Your task to perform on an android device: Add macbook to the cart on walmart Image 0: 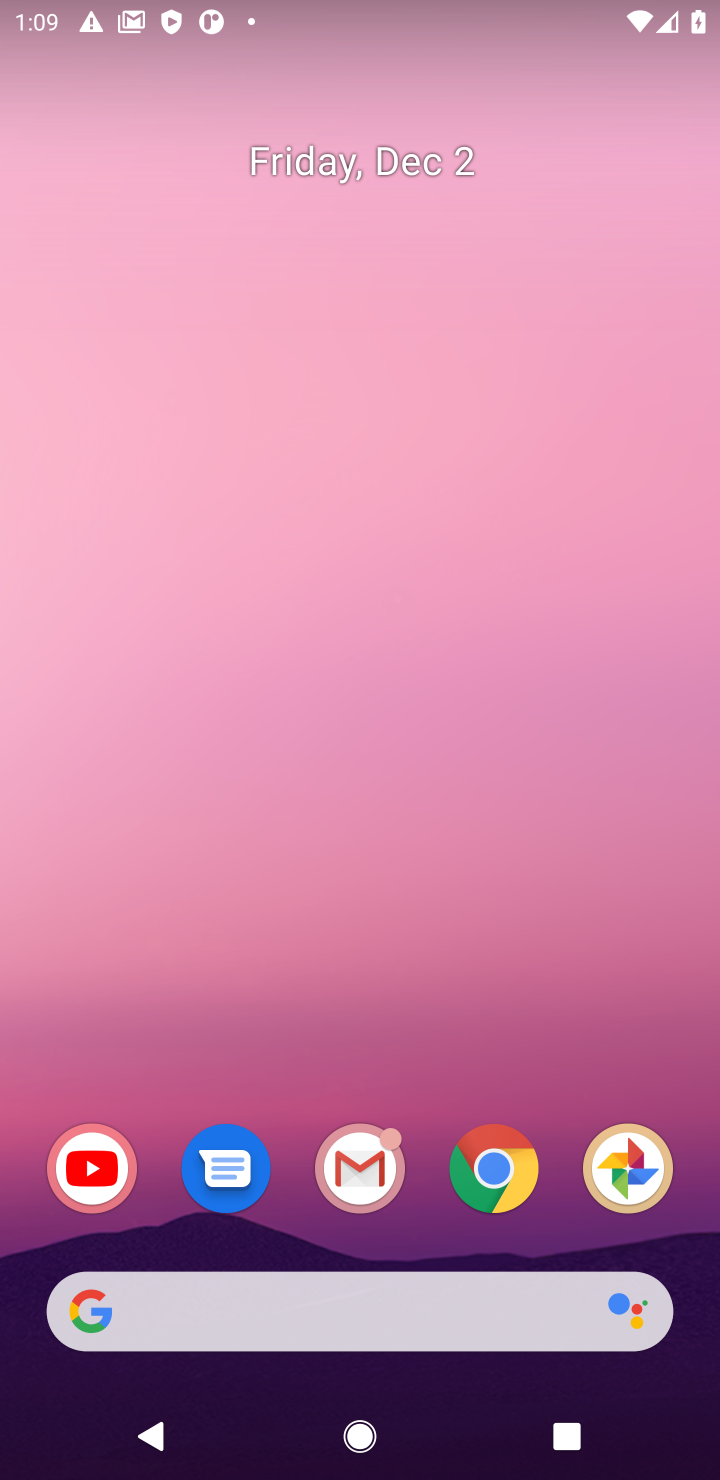
Step 0: click (496, 1177)
Your task to perform on an android device: Add macbook to the cart on walmart Image 1: 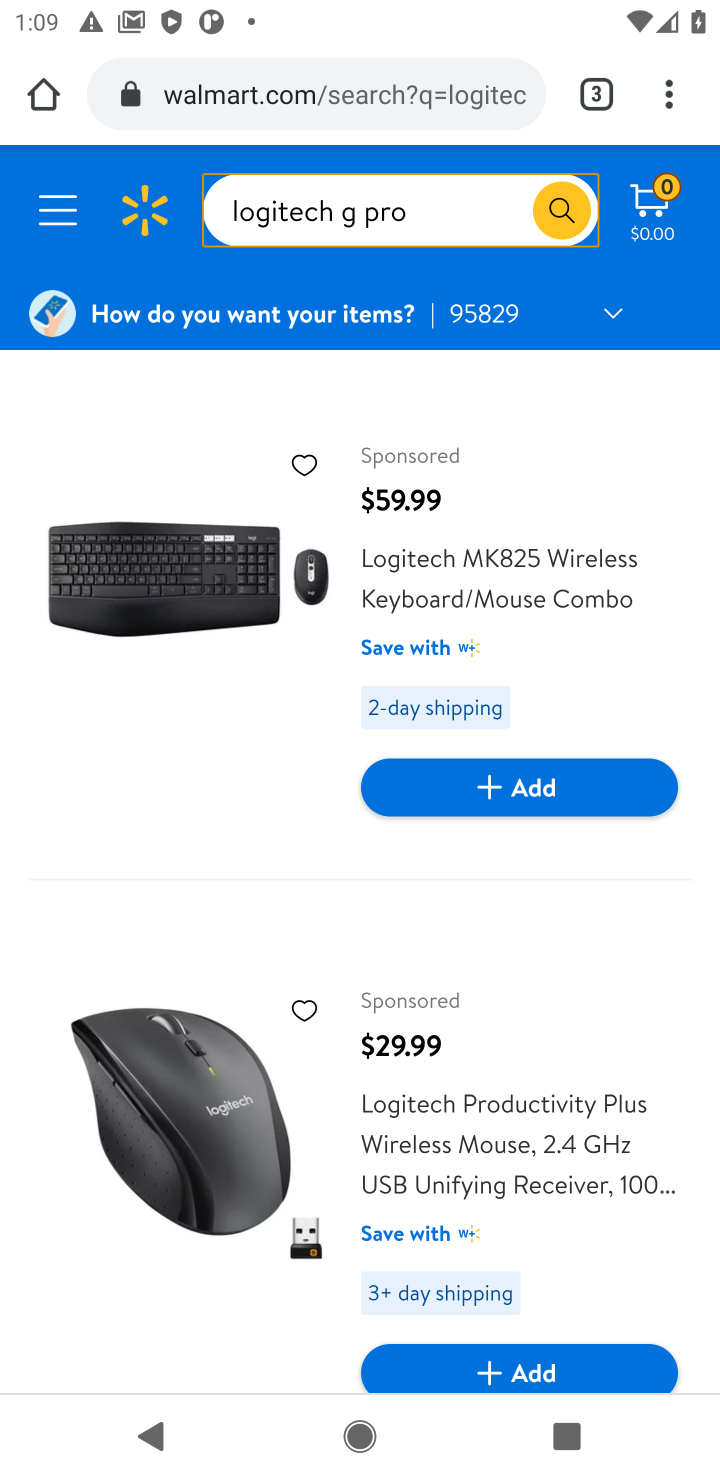
Step 1: click (415, 224)
Your task to perform on an android device: Add macbook to the cart on walmart Image 2: 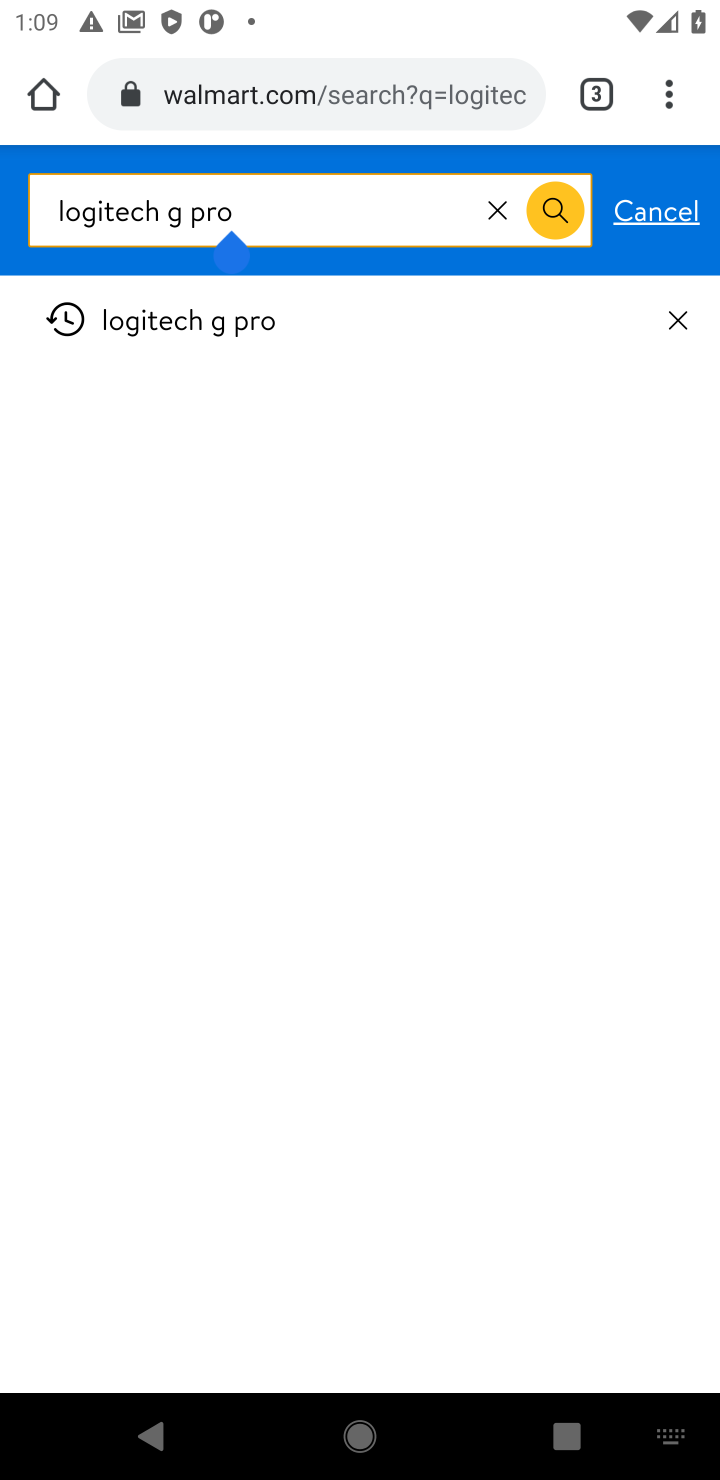
Step 2: click (509, 209)
Your task to perform on an android device: Add macbook to the cart on walmart Image 3: 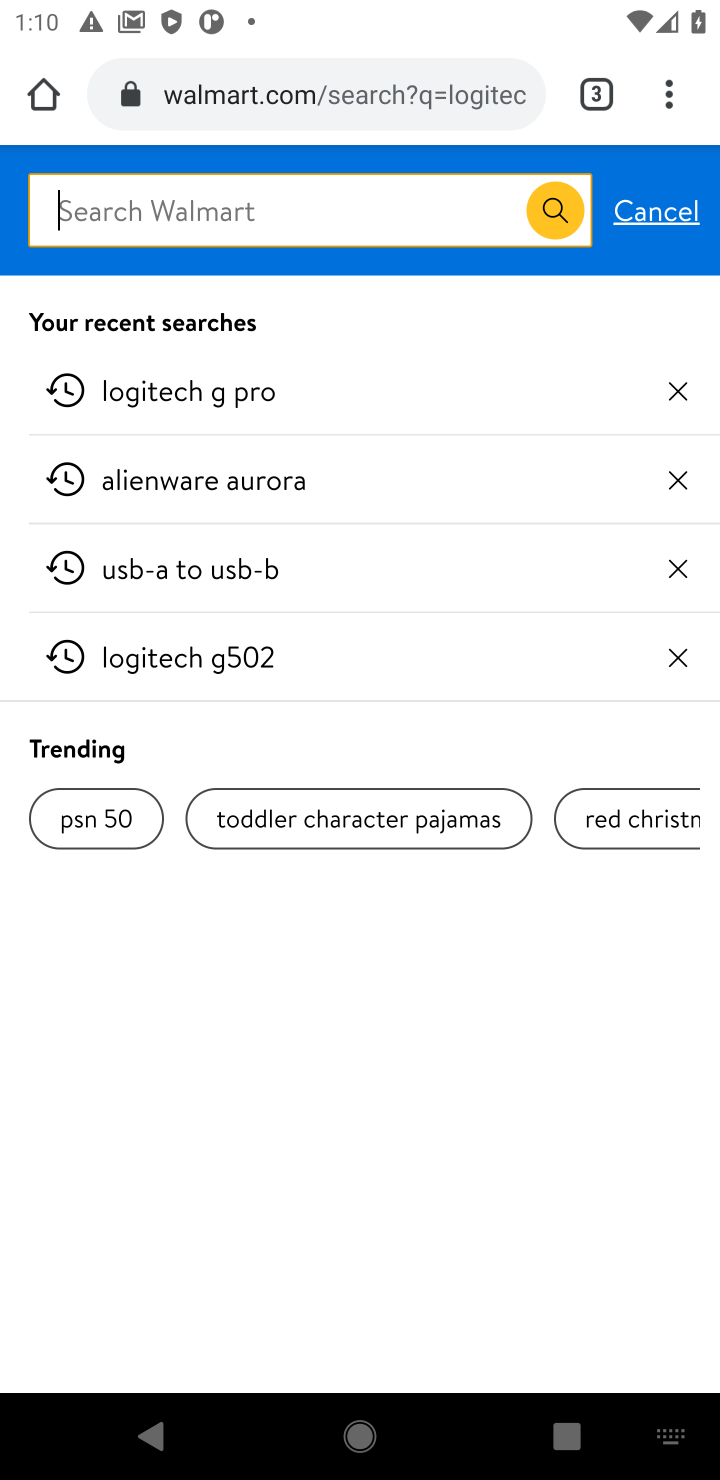
Step 3: click (162, 226)
Your task to perform on an android device: Add macbook to the cart on walmart Image 4: 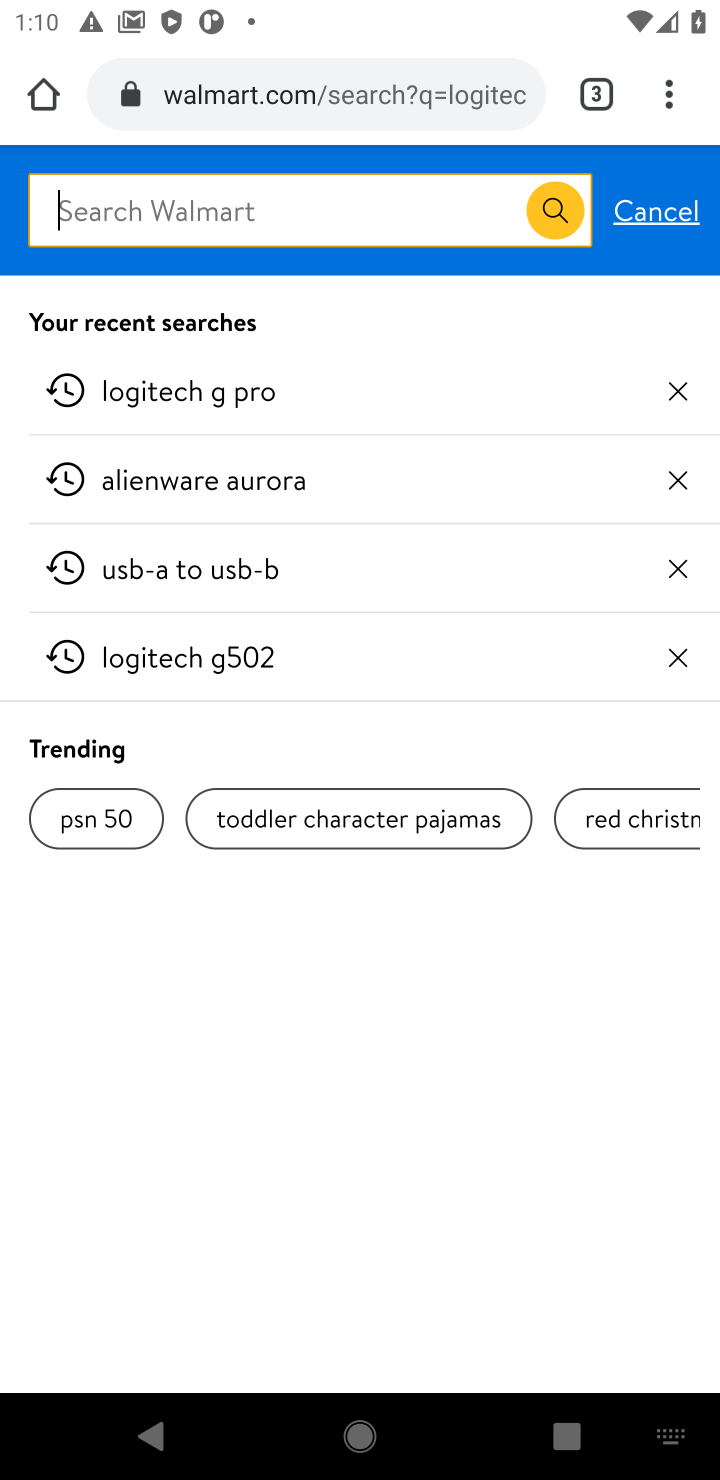
Step 4: type "macbook"
Your task to perform on an android device: Add macbook to the cart on walmart Image 5: 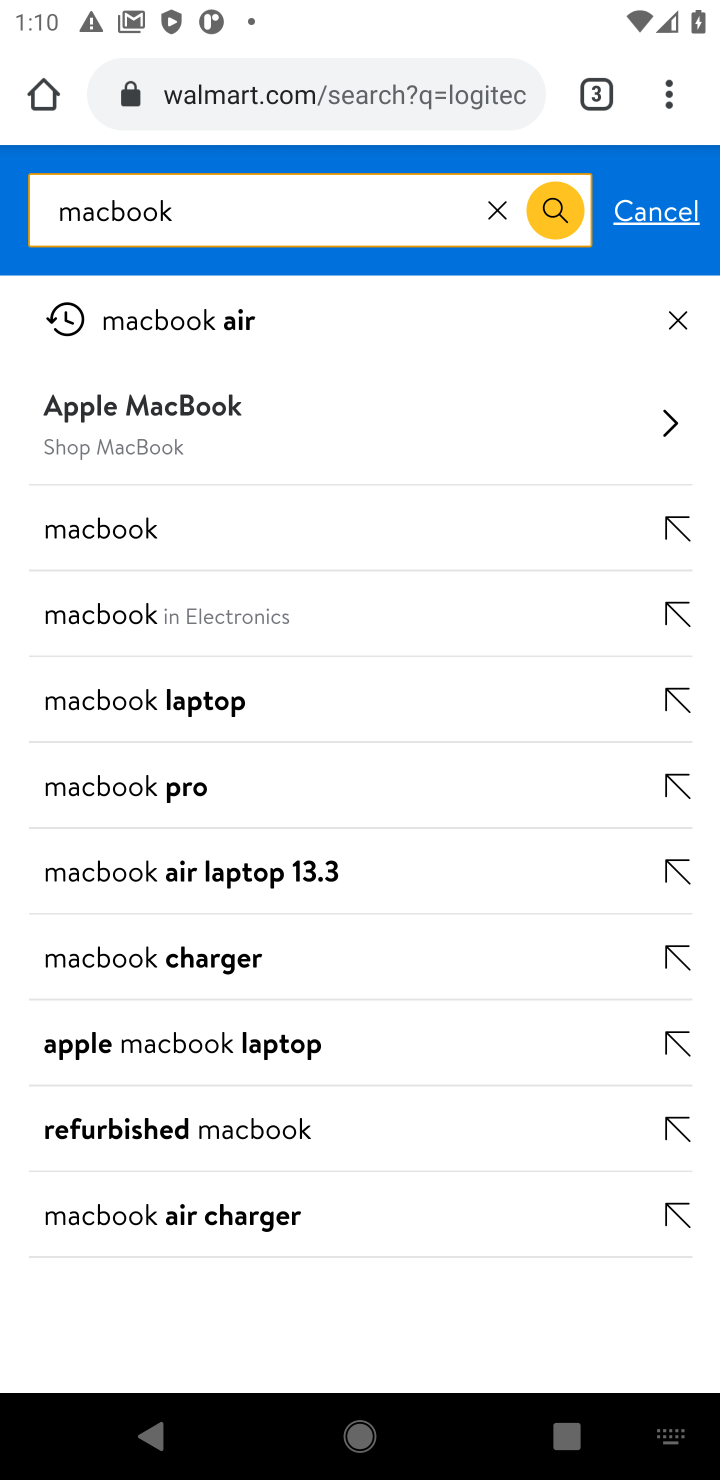
Step 5: click (122, 543)
Your task to perform on an android device: Add macbook to the cart on walmart Image 6: 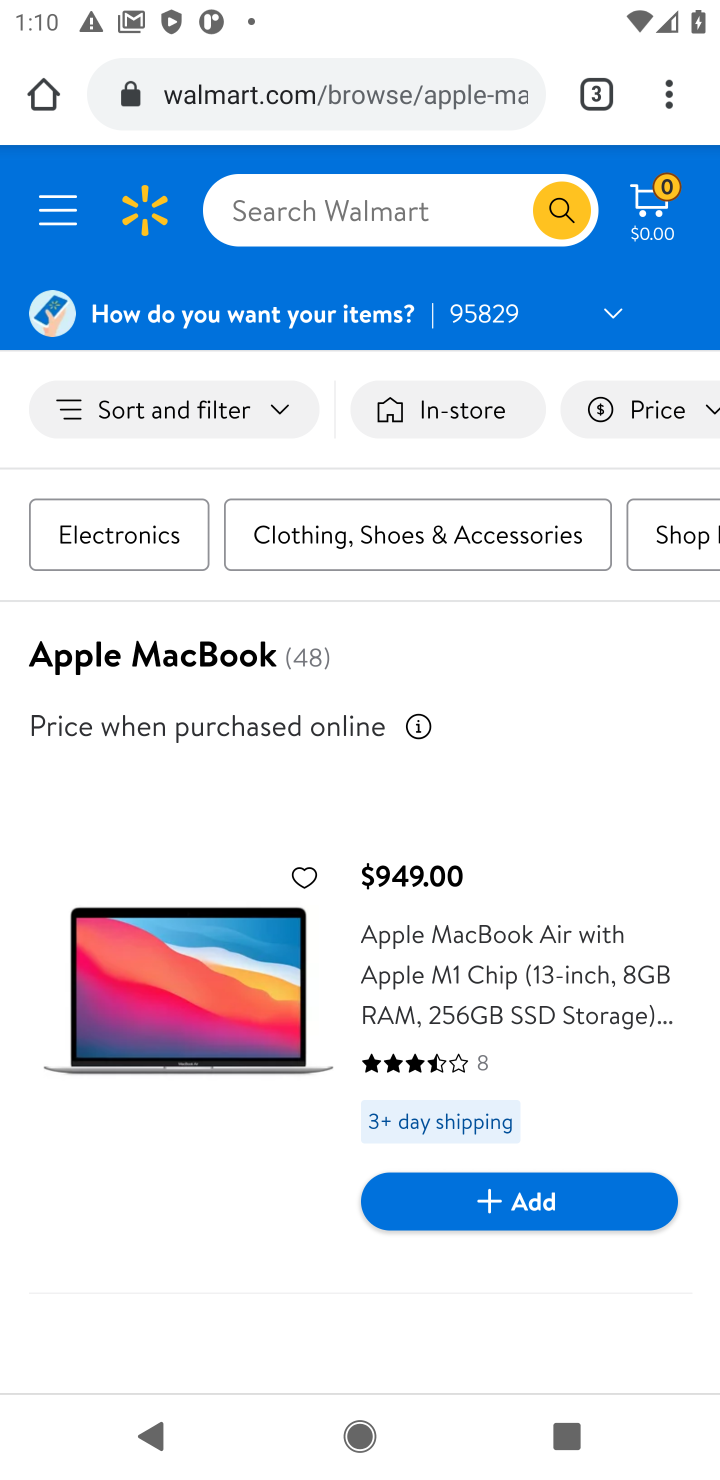
Step 6: click (419, 211)
Your task to perform on an android device: Add macbook to the cart on walmart Image 7: 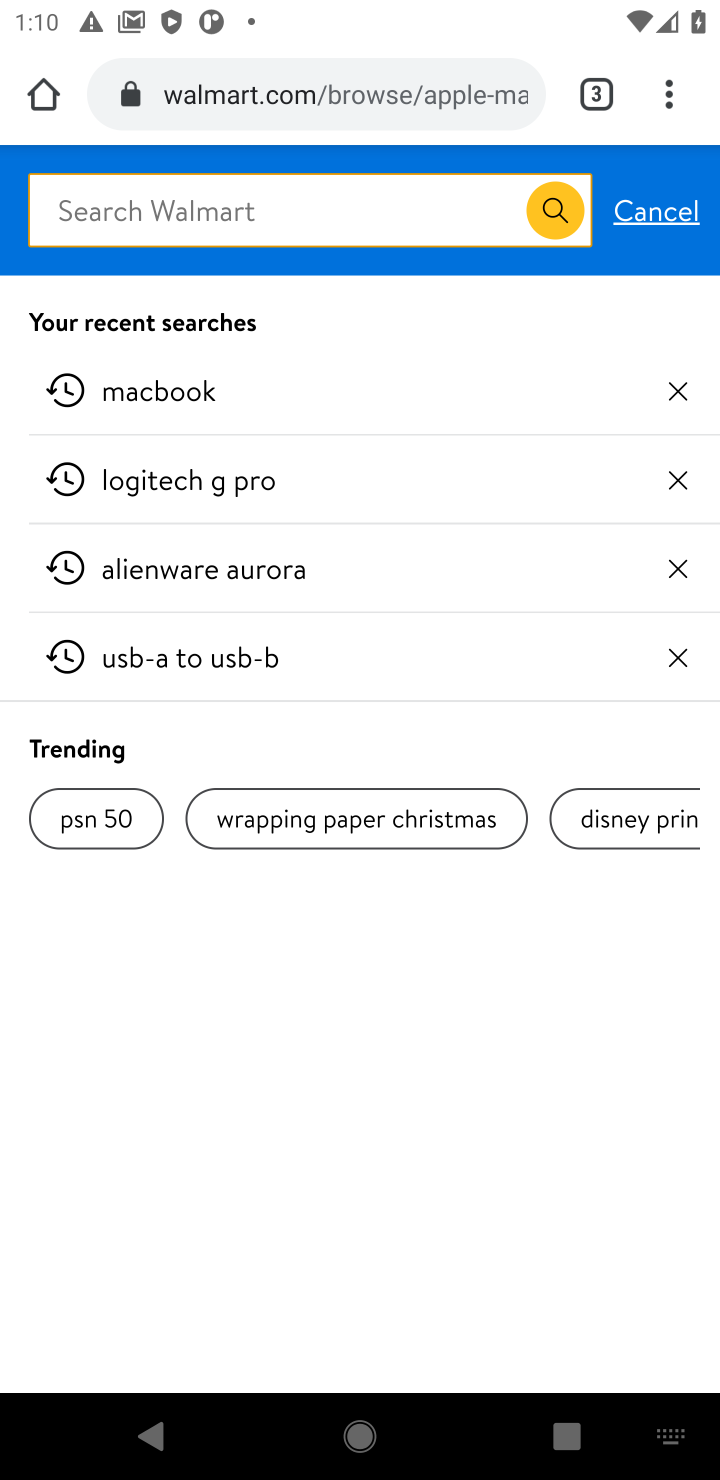
Step 7: click (188, 383)
Your task to perform on an android device: Add macbook to the cart on walmart Image 8: 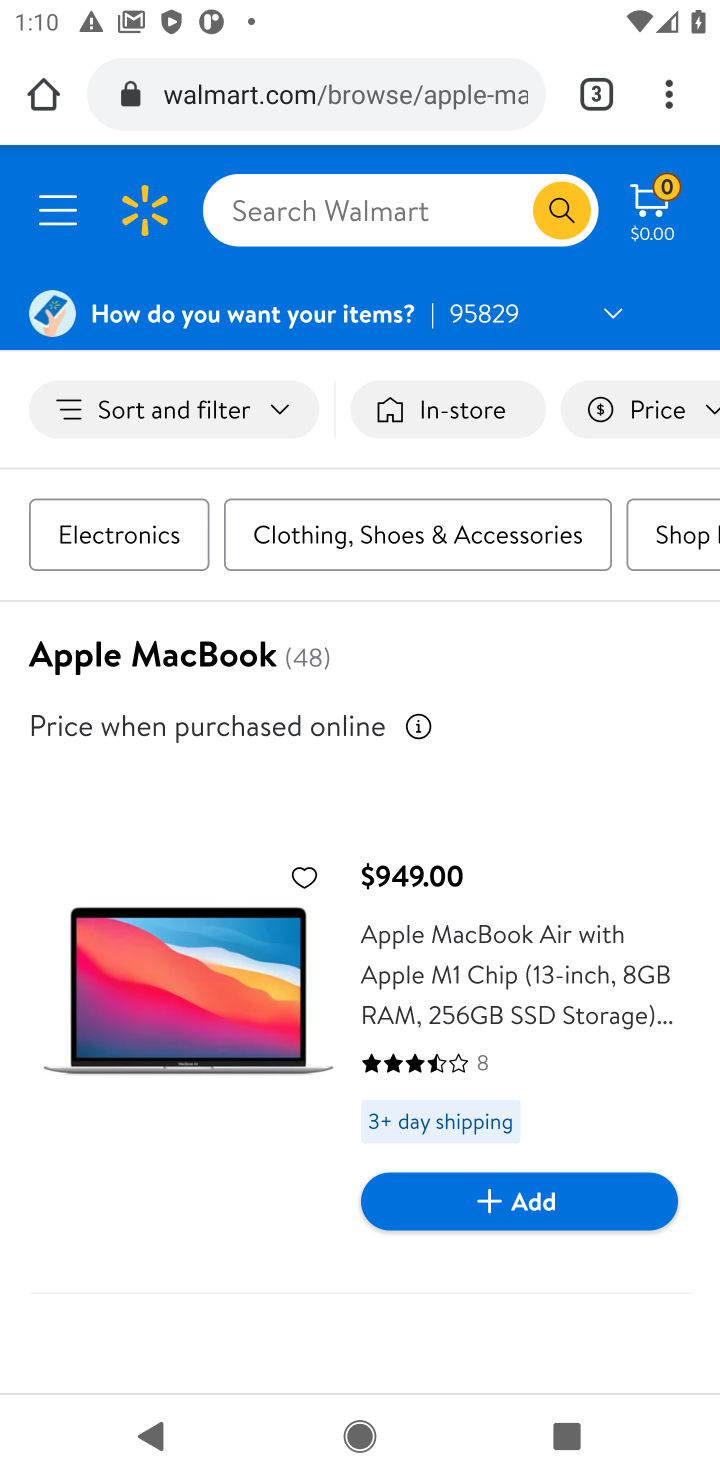
Step 8: drag from (461, 970) to (424, 651)
Your task to perform on an android device: Add macbook to the cart on walmart Image 9: 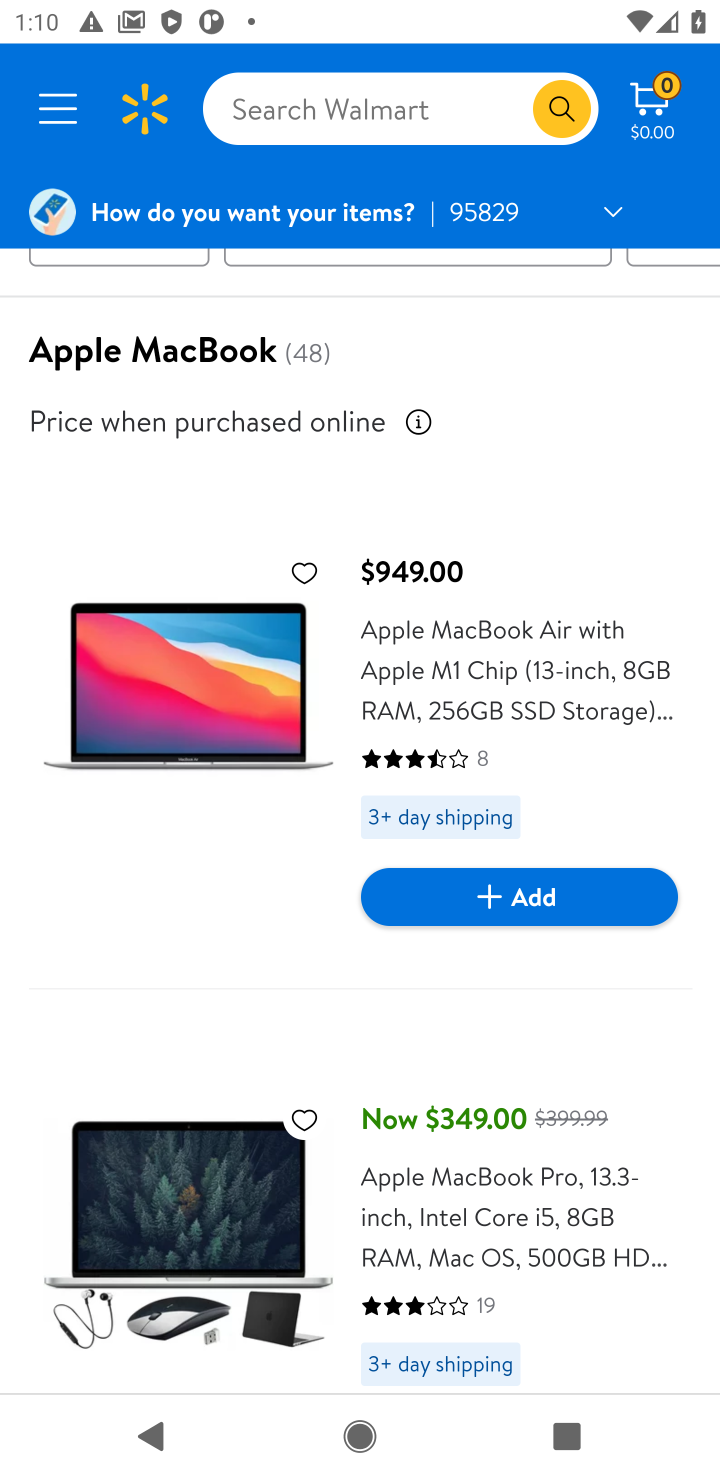
Step 9: click (516, 892)
Your task to perform on an android device: Add macbook to the cart on walmart Image 10: 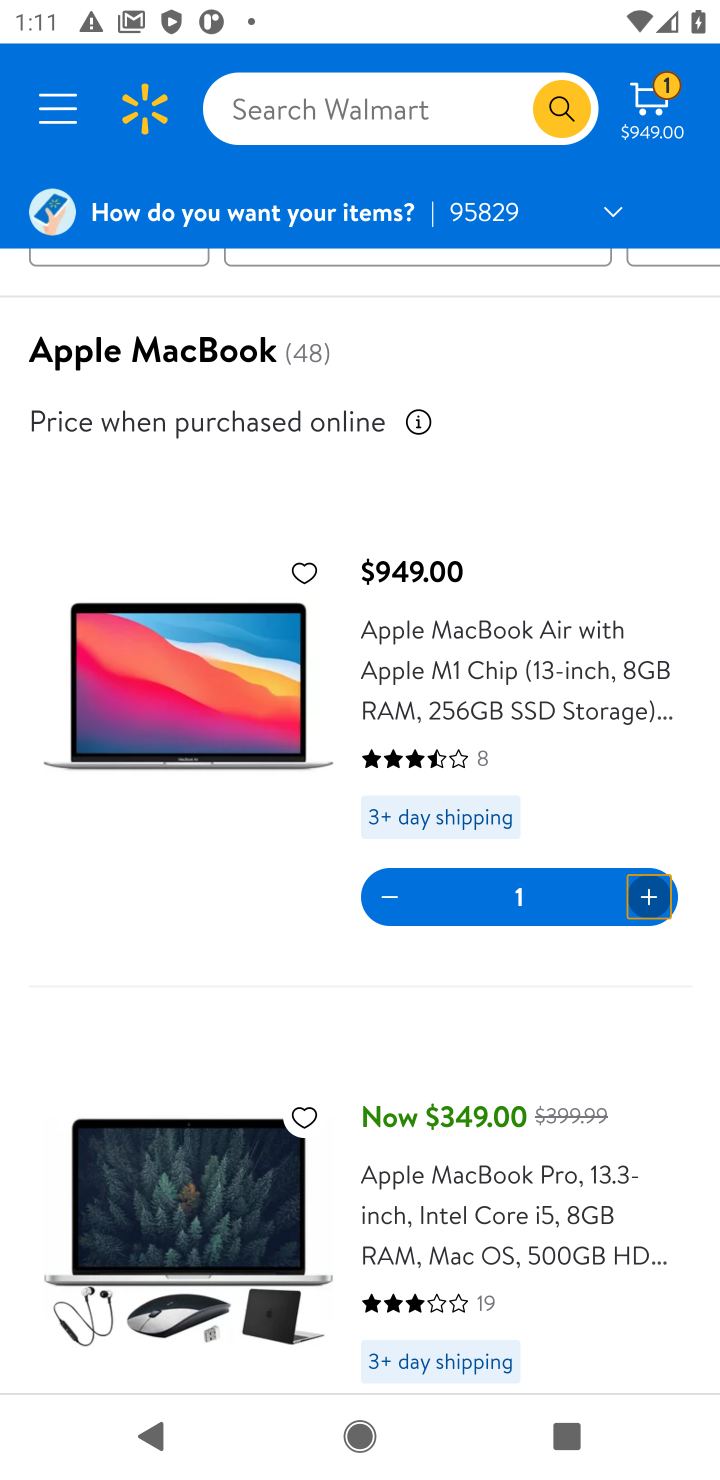
Step 10: task complete